Your task to perform on an android device: turn off notifications in google photos Image 0: 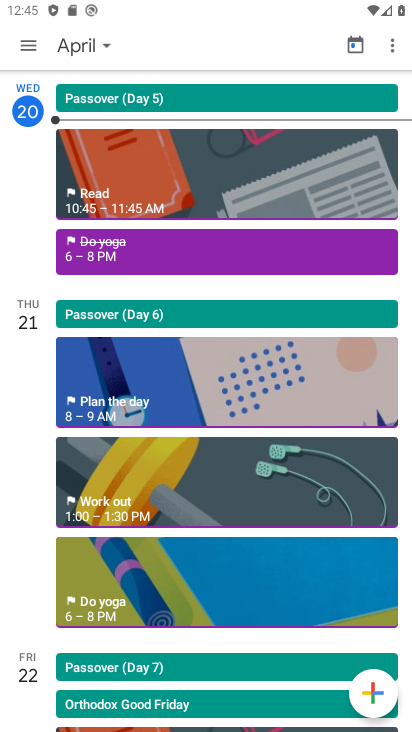
Step 0: press home button
Your task to perform on an android device: turn off notifications in google photos Image 1: 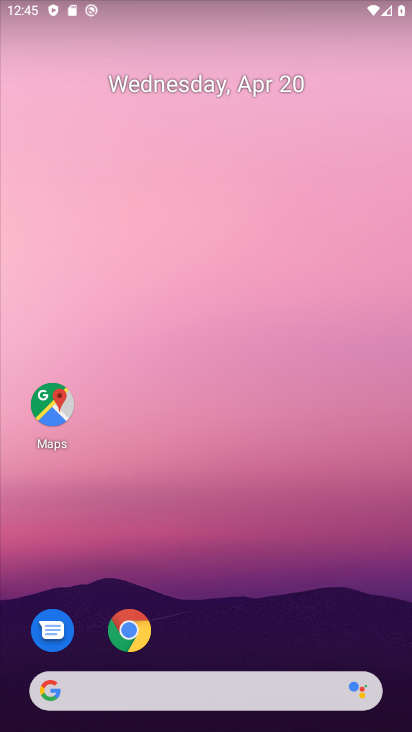
Step 1: drag from (329, 533) to (333, 195)
Your task to perform on an android device: turn off notifications in google photos Image 2: 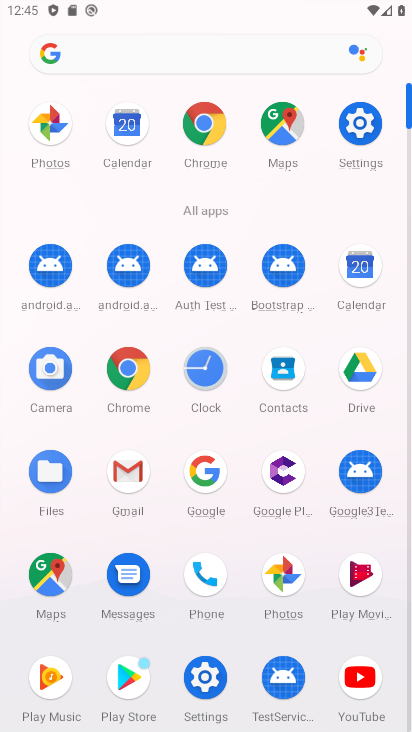
Step 2: click (285, 574)
Your task to perform on an android device: turn off notifications in google photos Image 3: 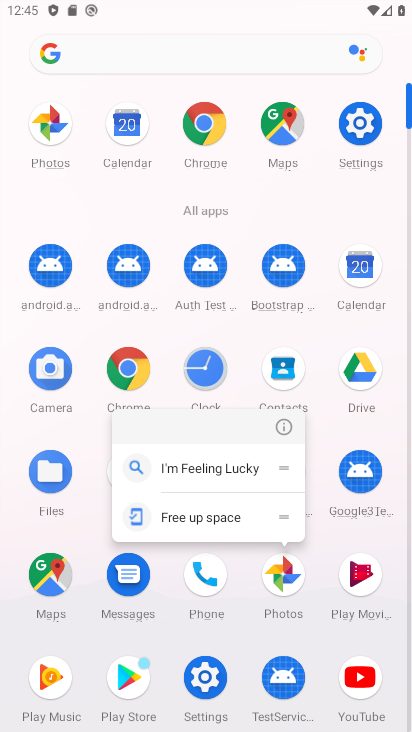
Step 3: click (284, 573)
Your task to perform on an android device: turn off notifications in google photos Image 4: 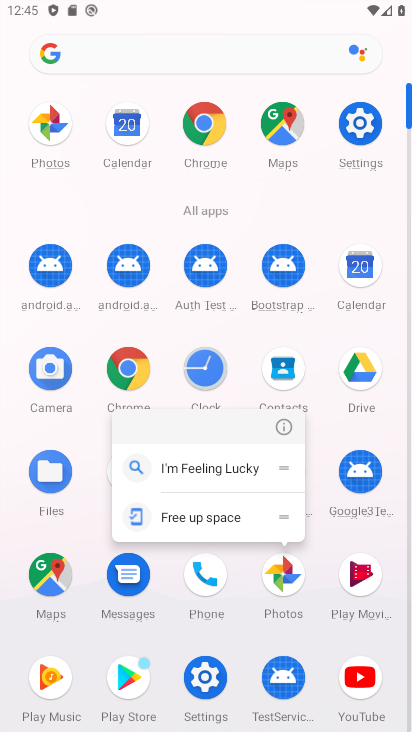
Step 4: click (278, 587)
Your task to perform on an android device: turn off notifications in google photos Image 5: 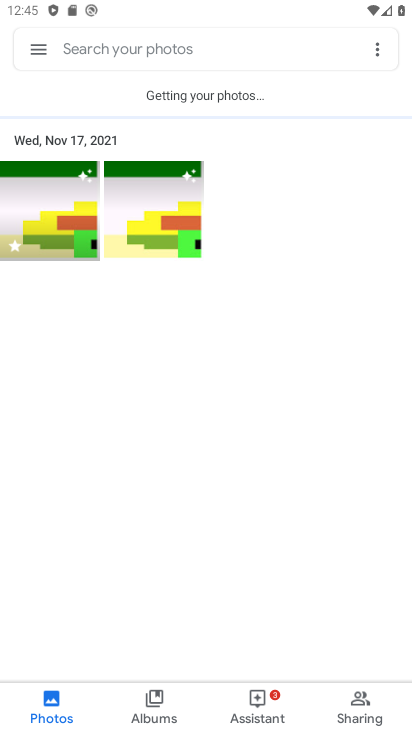
Step 5: click (43, 55)
Your task to perform on an android device: turn off notifications in google photos Image 6: 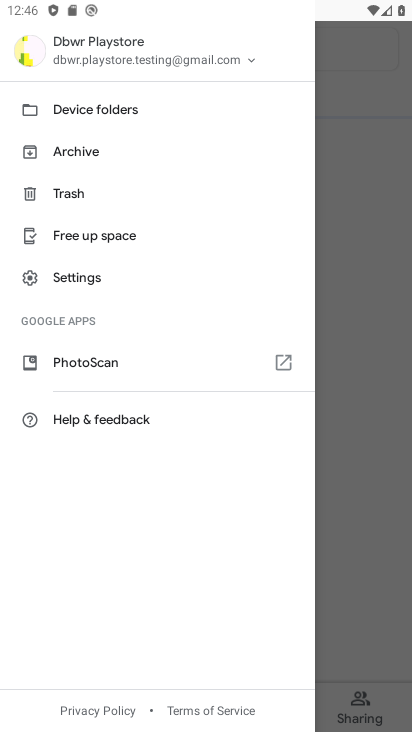
Step 6: click (98, 275)
Your task to perform on an android device: turn off notifications in google photos Image 7: 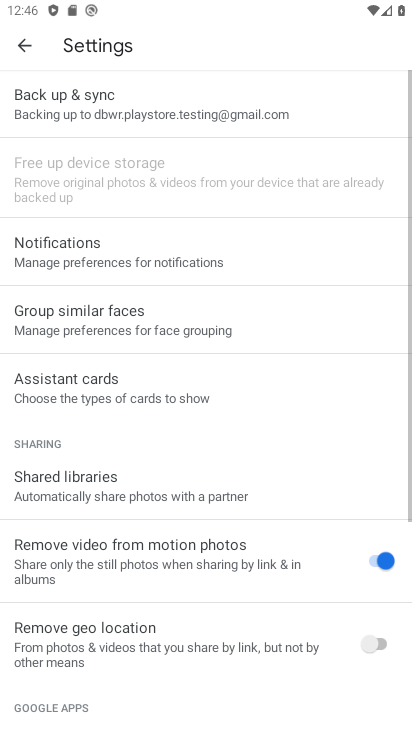
Step 7: click (100, 263)
Your task to perform on an android device: turn off notifications in google photos Image 8: 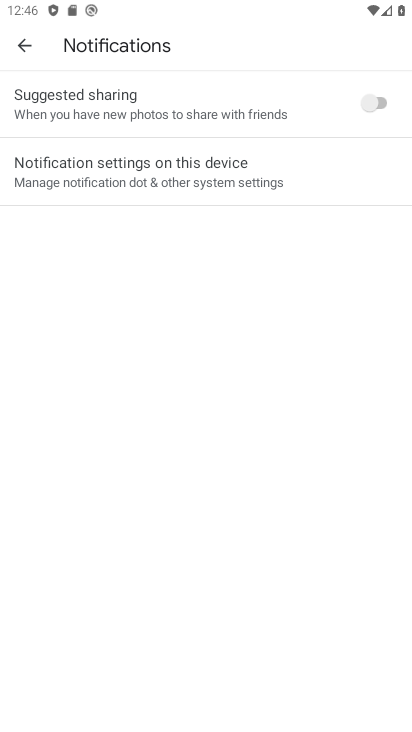
Step 8: click (112, 180)
Your task to perform on an android device: turn off notifications in google photos Image 9: 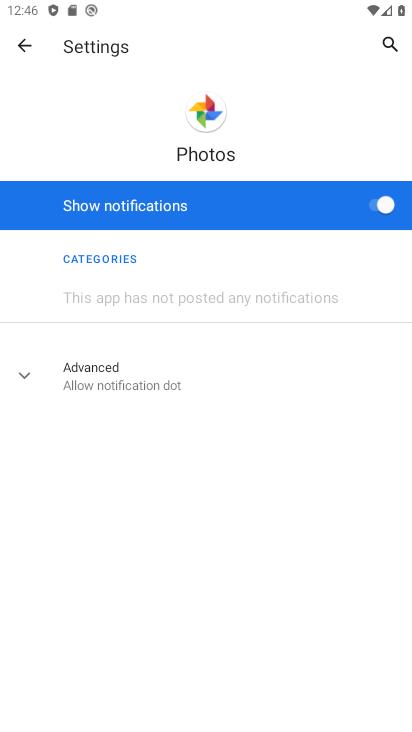
Step 9: click (379, 208)
Your task to perform on an android device: turn off notifications in google photos Image 10: 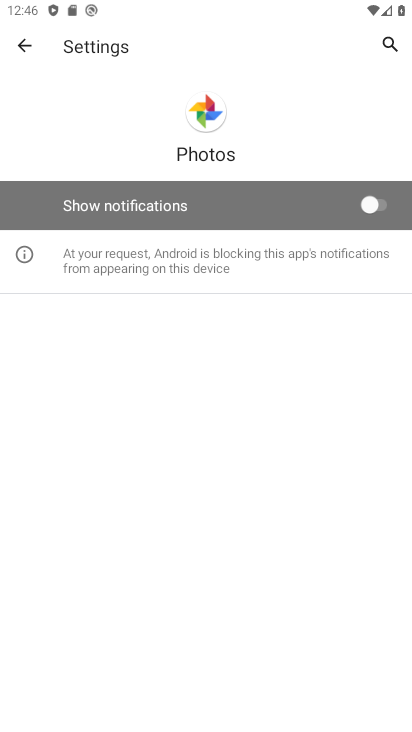
Step 10: task complete